Your task to perform on an android device: Search for "energizer triple a" on walmart, select the first entry, add it to the cart, then select checkout. Image 0: 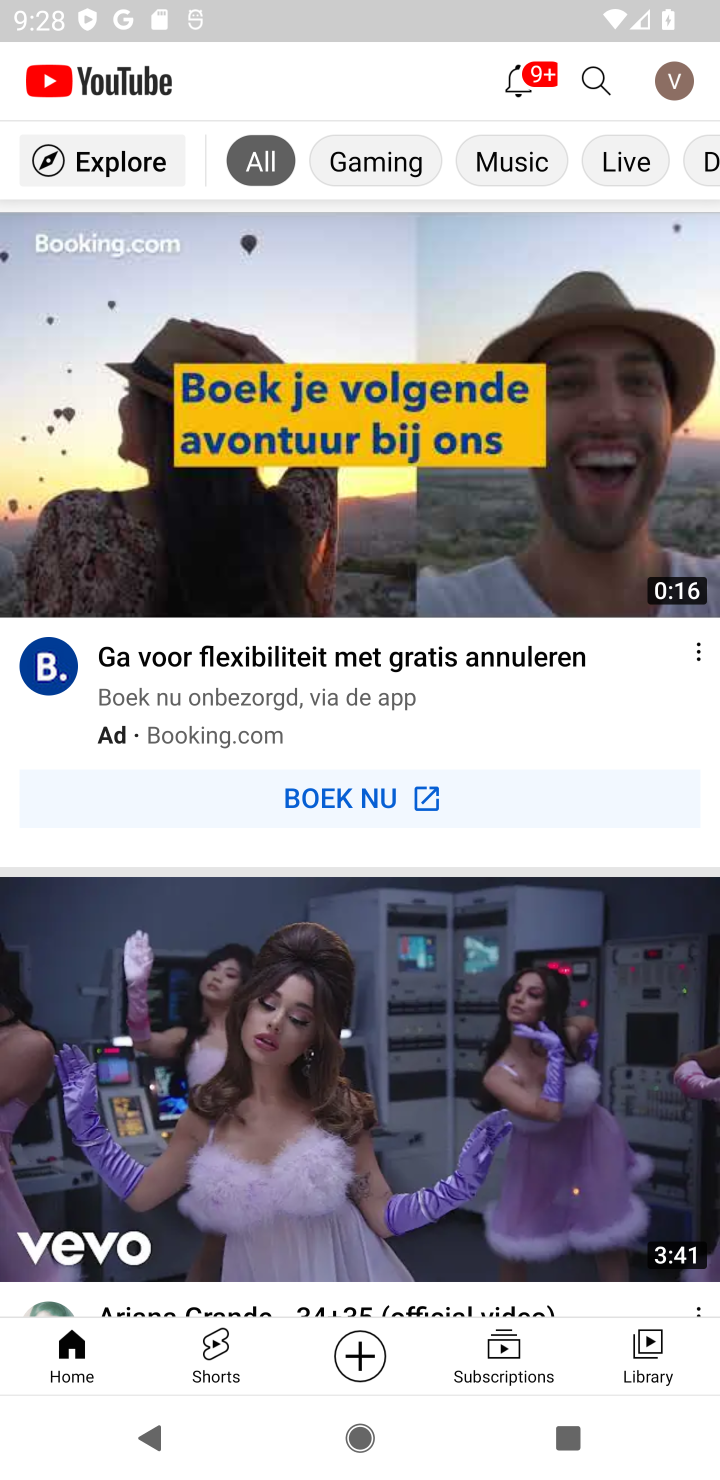
Step 0: press home button
Your task to perform on an android device: Search for "energizer triple a" on walmart, select the first entry, add it to the cart, then select checkout. Image 1: 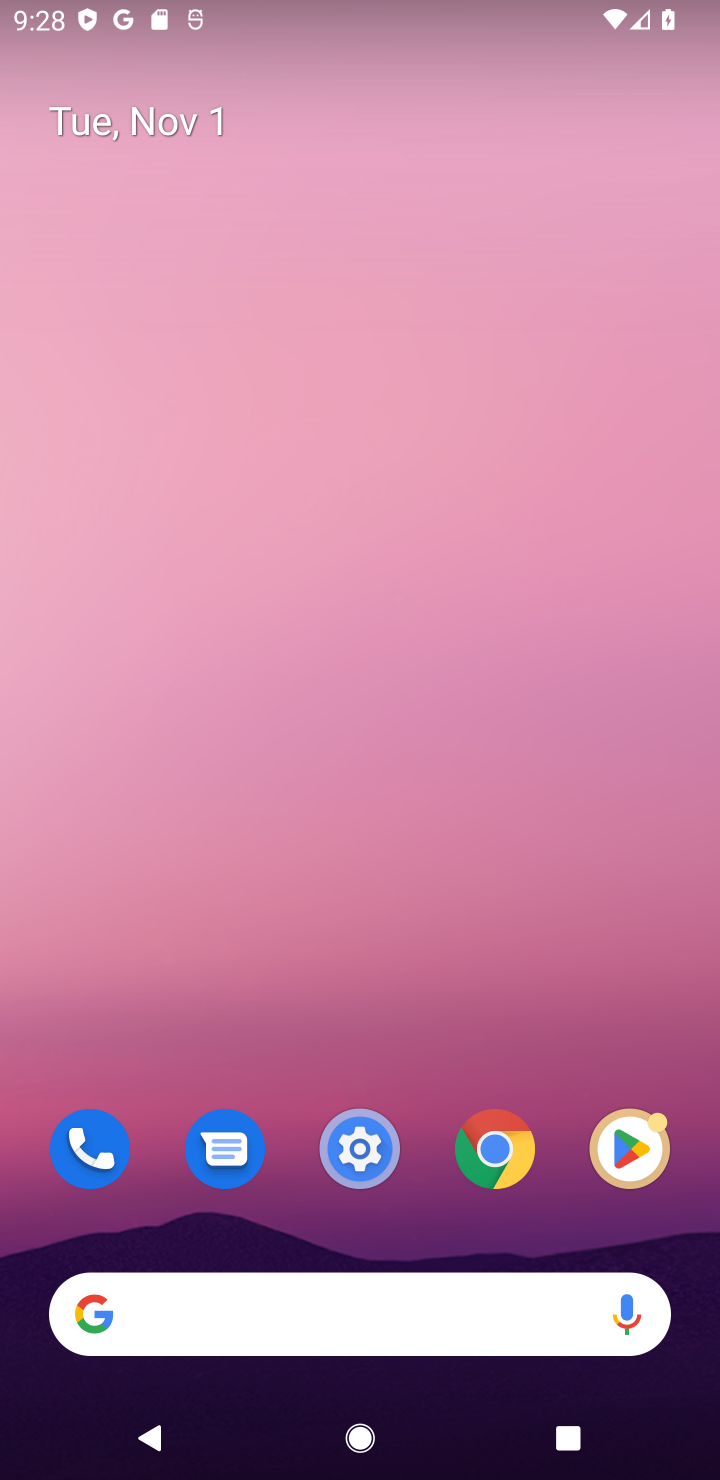
Step 1: click (137, 1304)
Your task to perform on an android device: Search for "energizer triple a" on walmart, select the first entry, add it to the cart, then select checkout. Image 2: 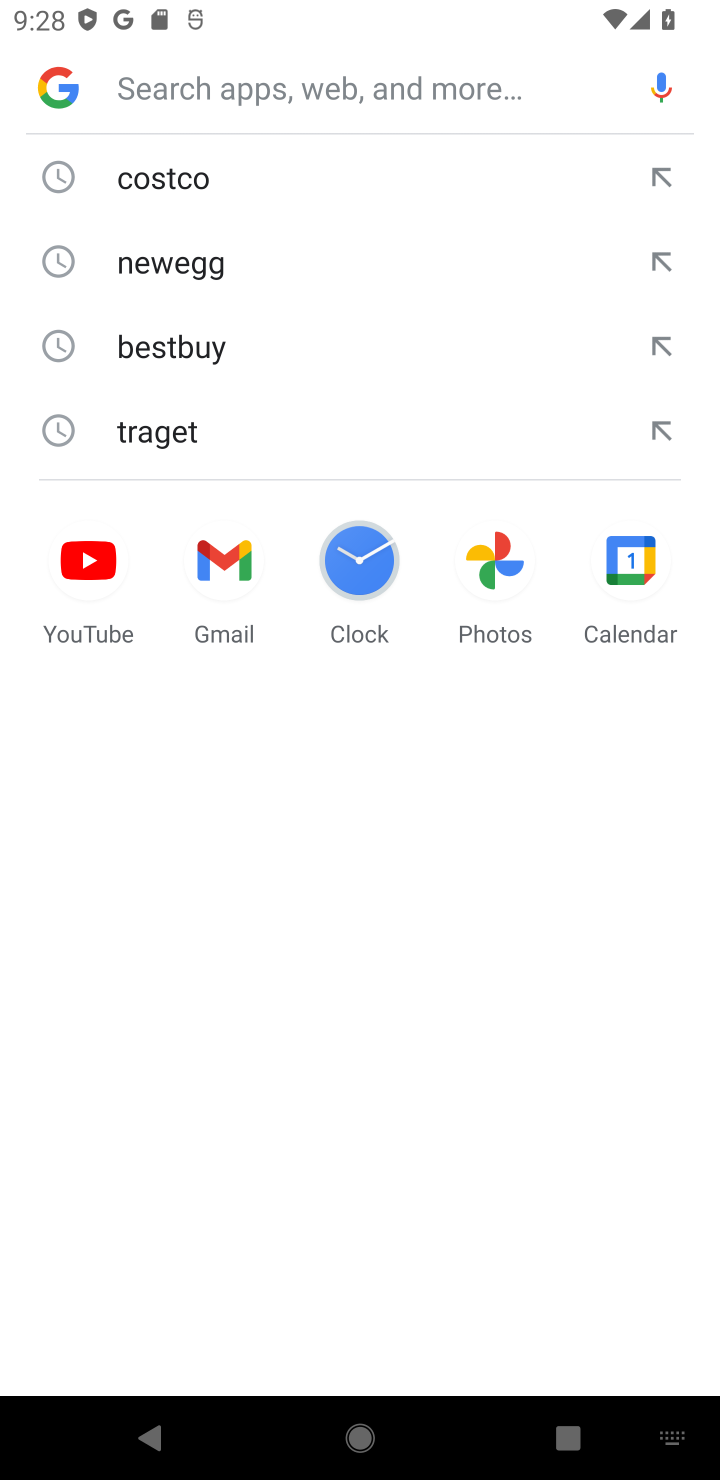
Step 2: type "walmart"
Your task to perform on an android device: Search for "energizer triple a" on walmart, select the first entry, add it to the cart, then select checkout. Image 3: 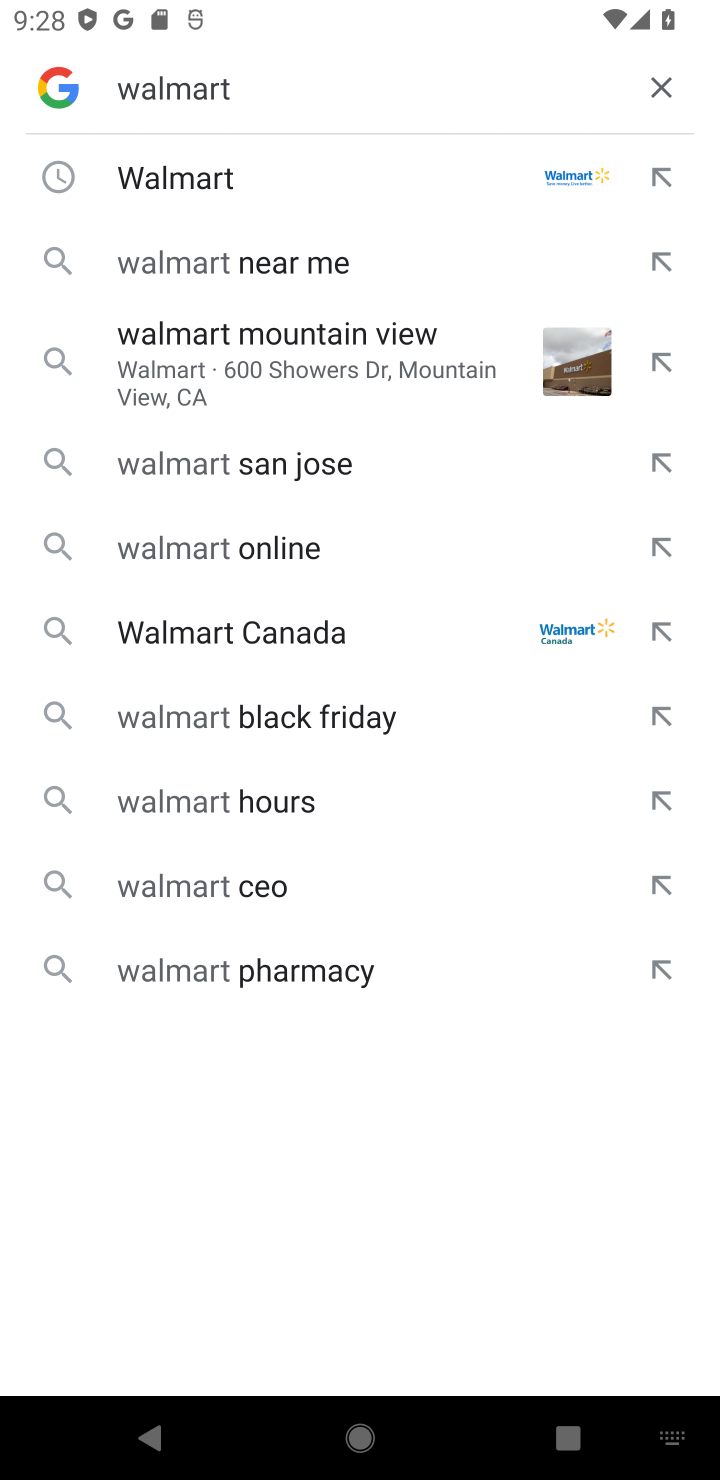
Step 3: press enter
Your task to perform on an android device: Search for "energizer triple a" on walmart, select the first entry, add it to the cart, then select checkout. Image 4: 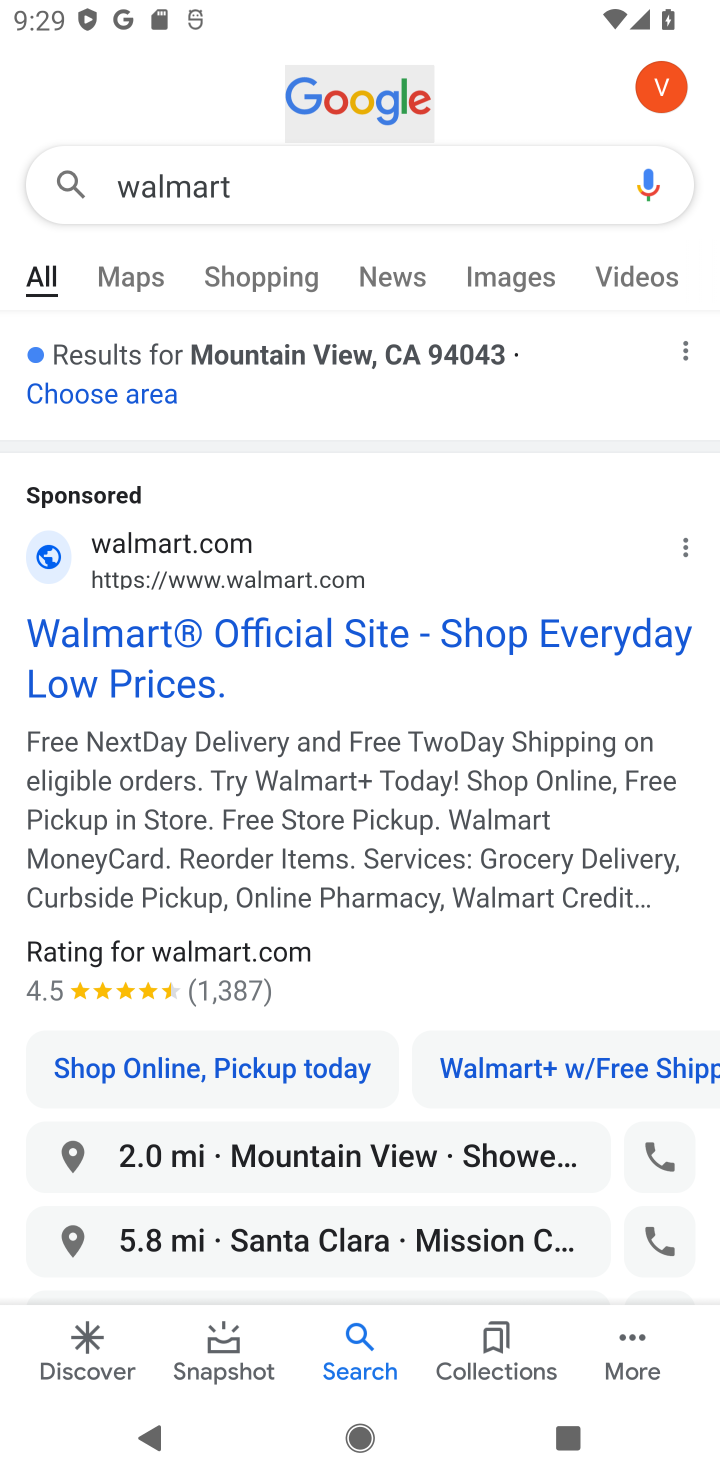
Step 4: click (215, 634)
Your task to perform on an android device: Search for "energizer triple a" on walmart, select the first entry, add it to the cart, then select checkout. Image 5: 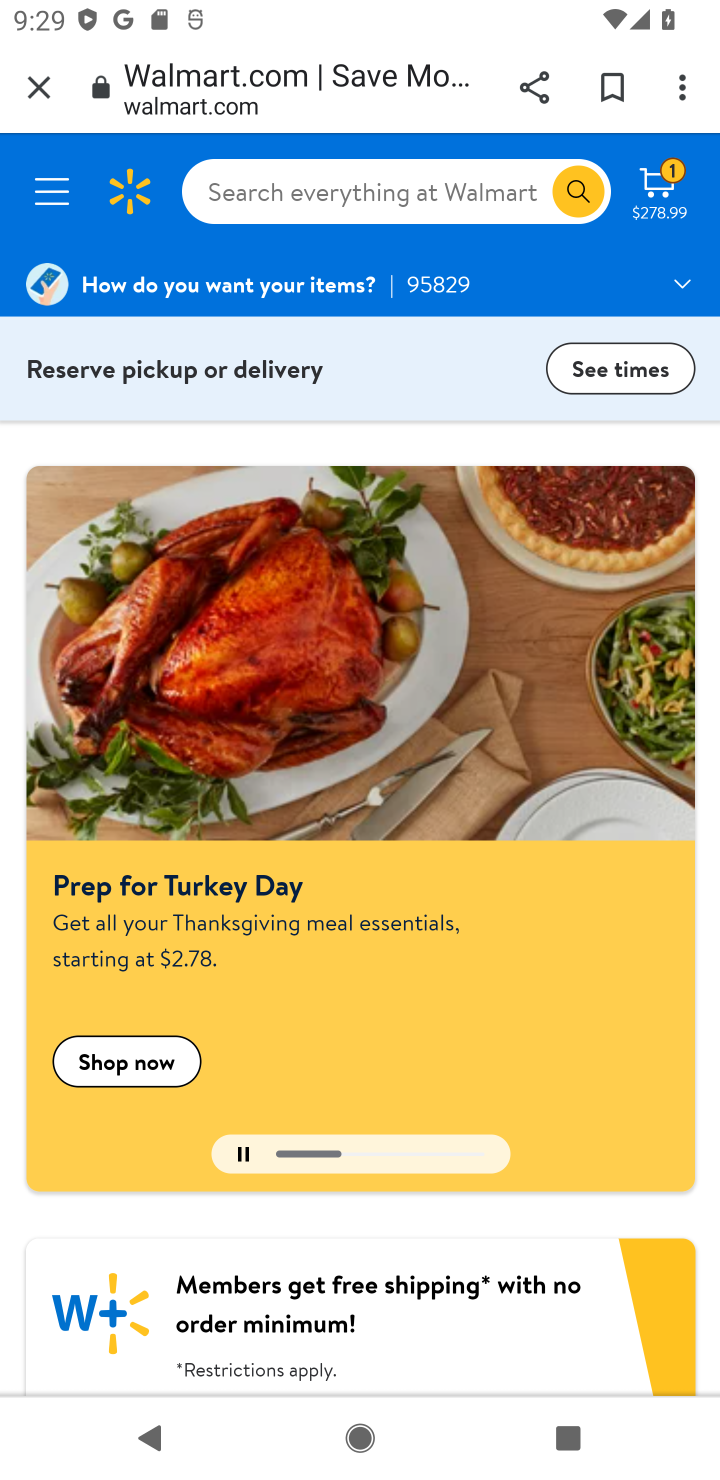
Step 5: click (259, 185)
Your task to perform on an android device: Search for "energizer triple a" on walmart, select the first entry, add it to the cart, then select checkout. Image 6: 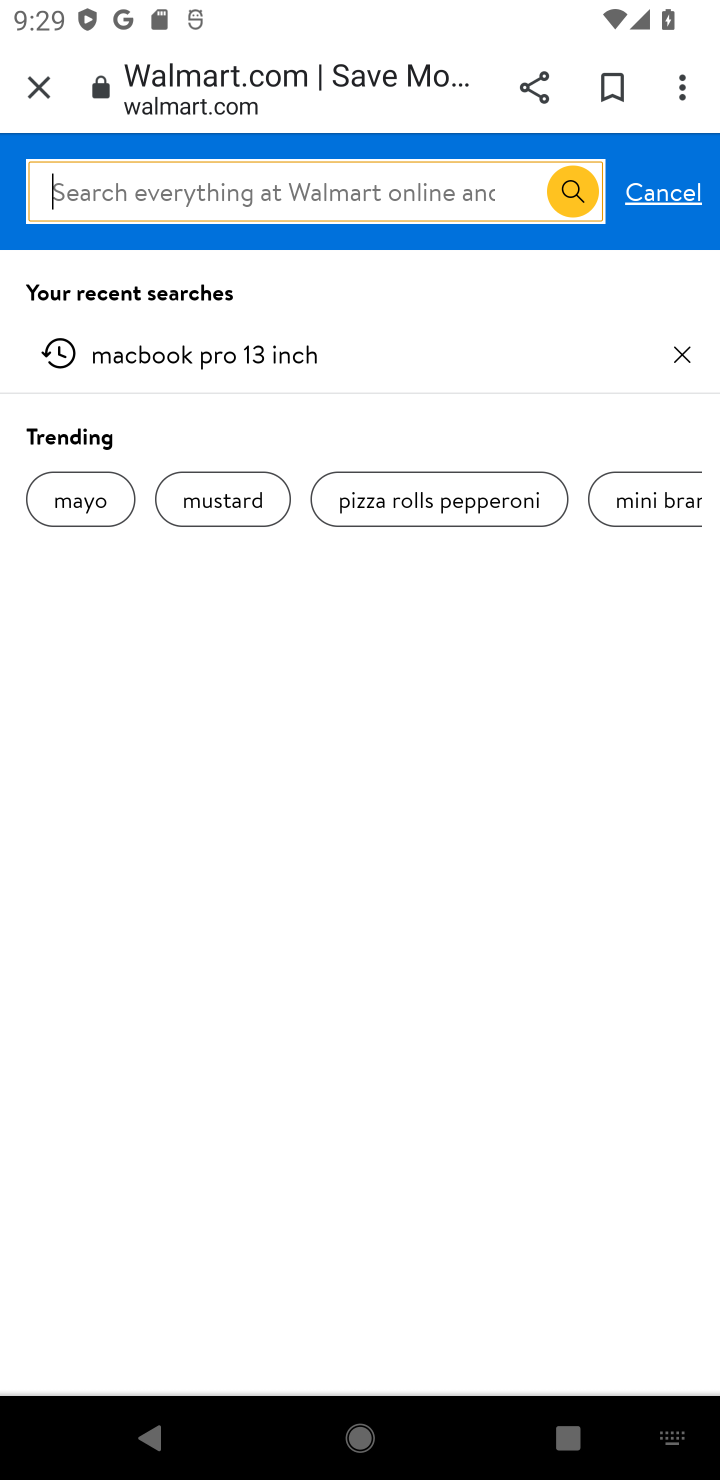
Step 6: type "energizer triple a"
Your task to perform on an android device: Search for "energizer triple a" on walmart, select the first entry, add it to the cart, then select checkout. Image 7: 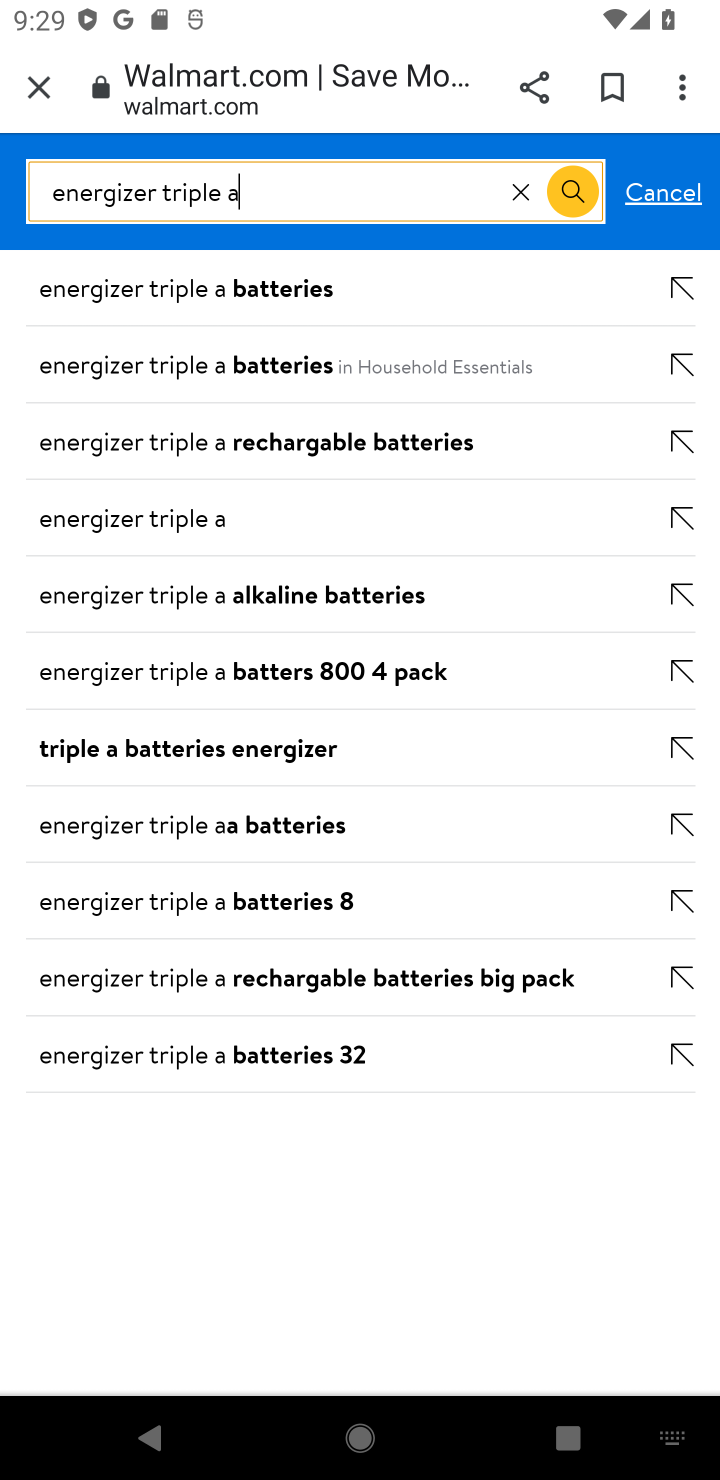
Step 7: press enter
Your task to perform on an android device: Search for "energizer triple a" on walmart, select the first entry, add it to the cart, then select checkout. Image 8: 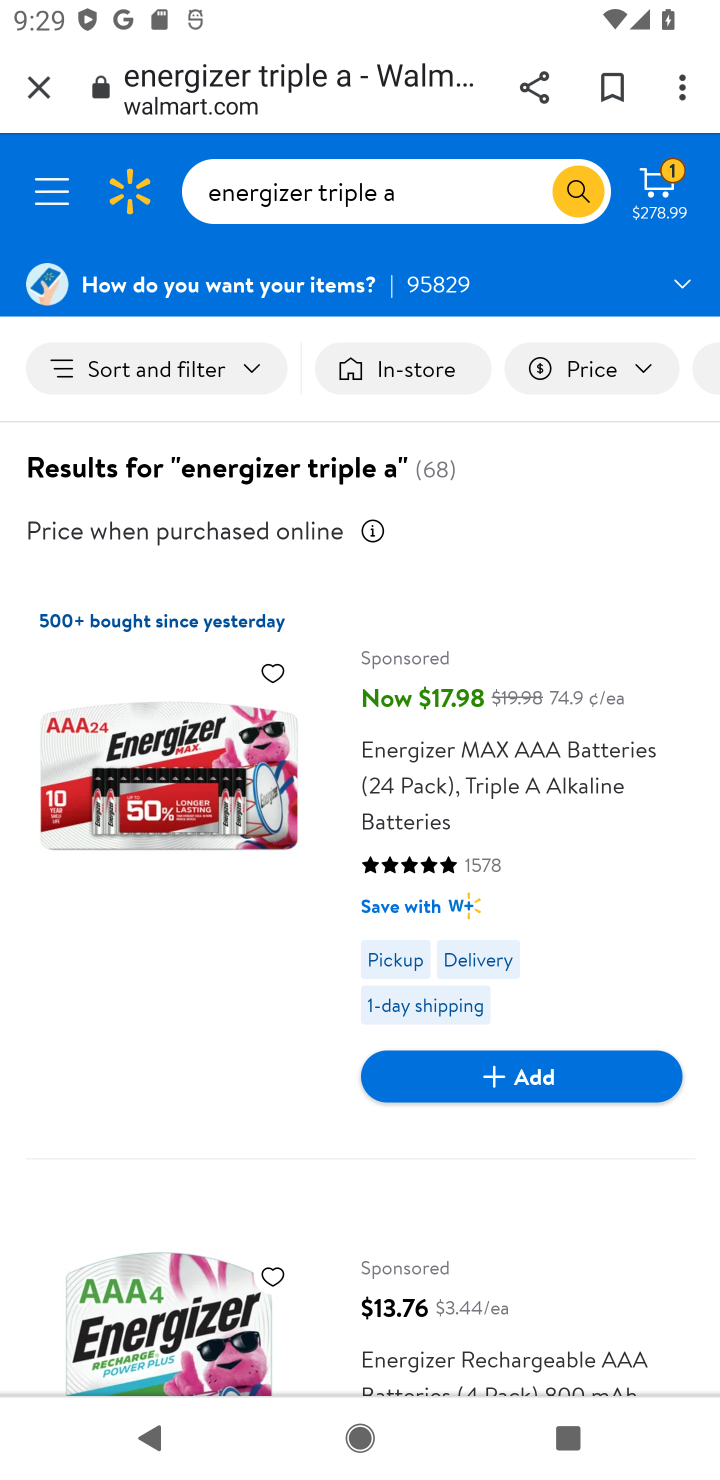
Step 8: drag from (504, 1192) to (557, 885)
Your task to perform on an android device: Search for "energizer triple a" on walmart, select the first entry, add it to the cart, then select checkout. Image 9: 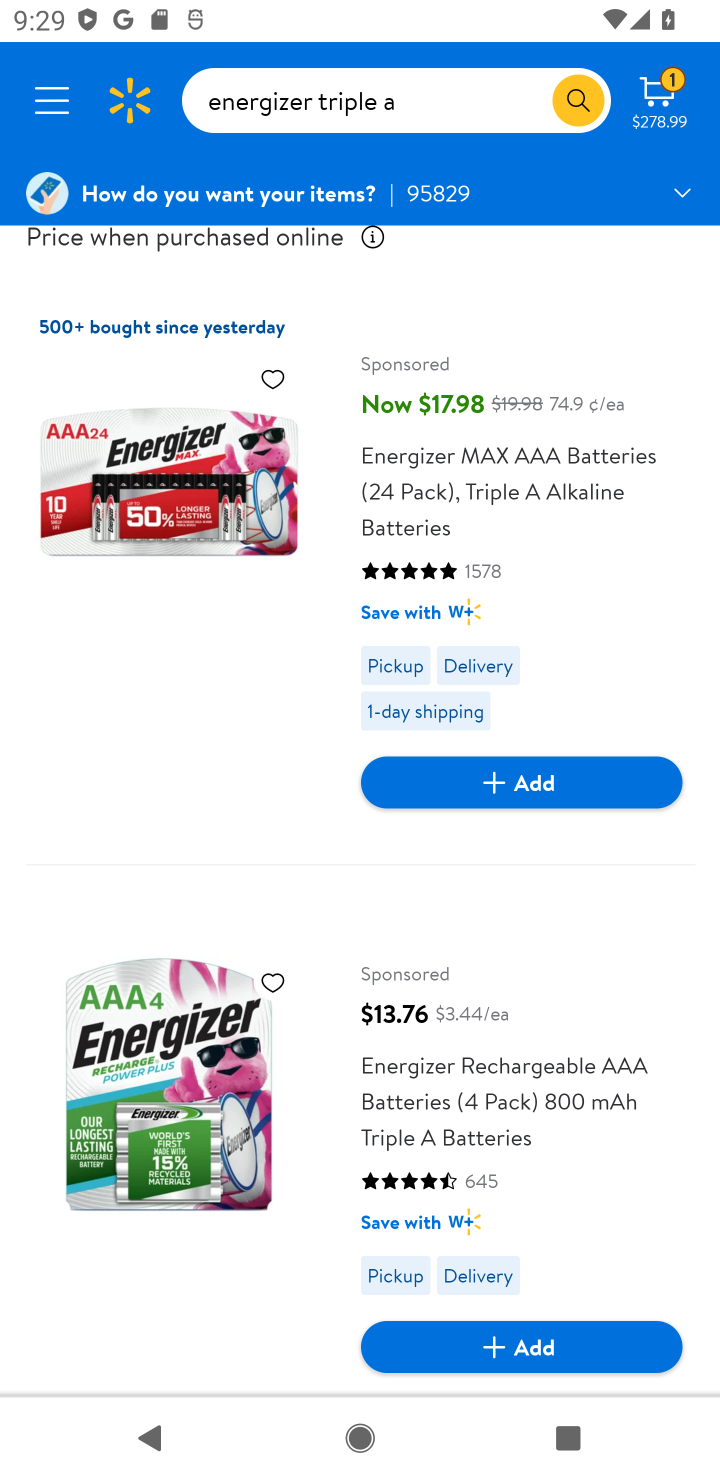
Step 9: click (524, 777)
Your task to perform on an android device: Search for "energizer triple a" on walmart, select the first entry, add it to the cart, then select checkout. Image 10: 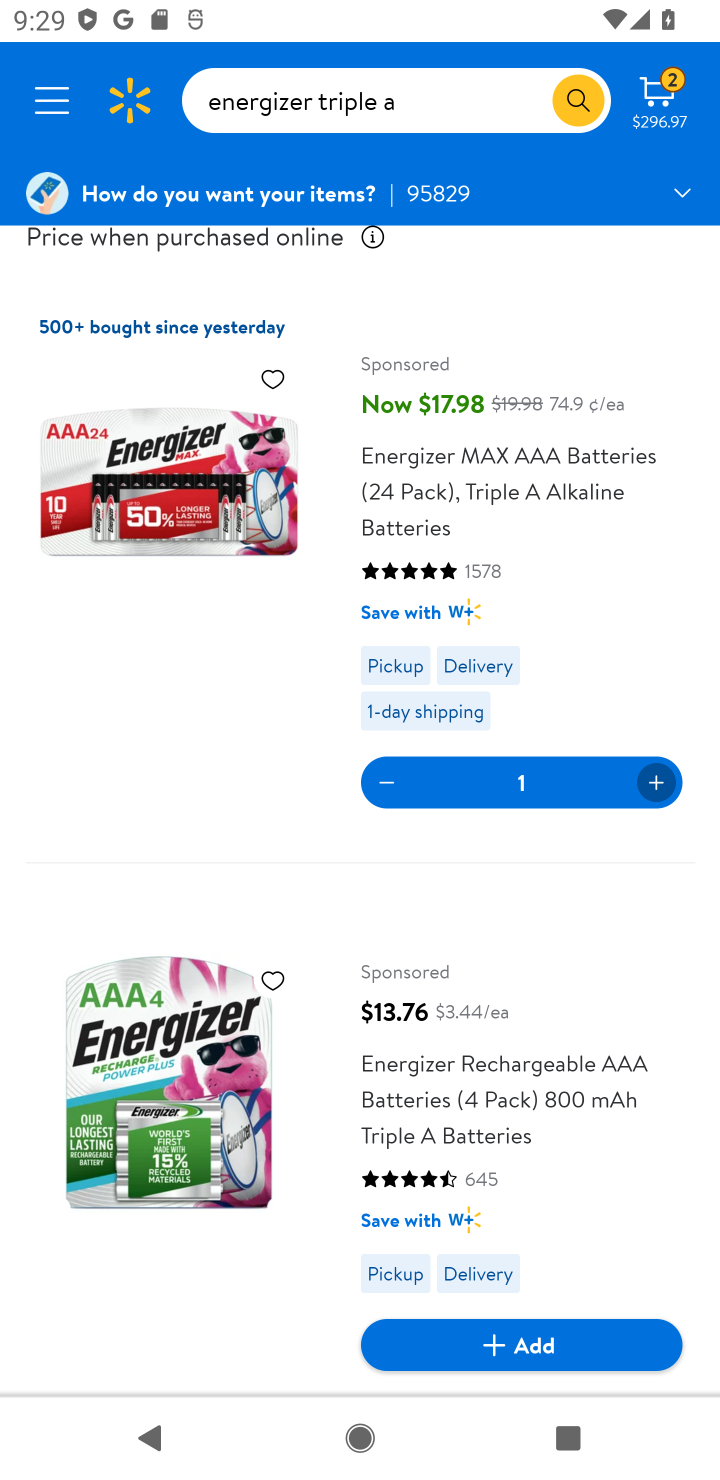
Step 10: click (661, 92)
Your task to perform on an android device: Search for "energizer triple a" on walmart, select the first entry, add it to the cart, then select checkout. Image 11: 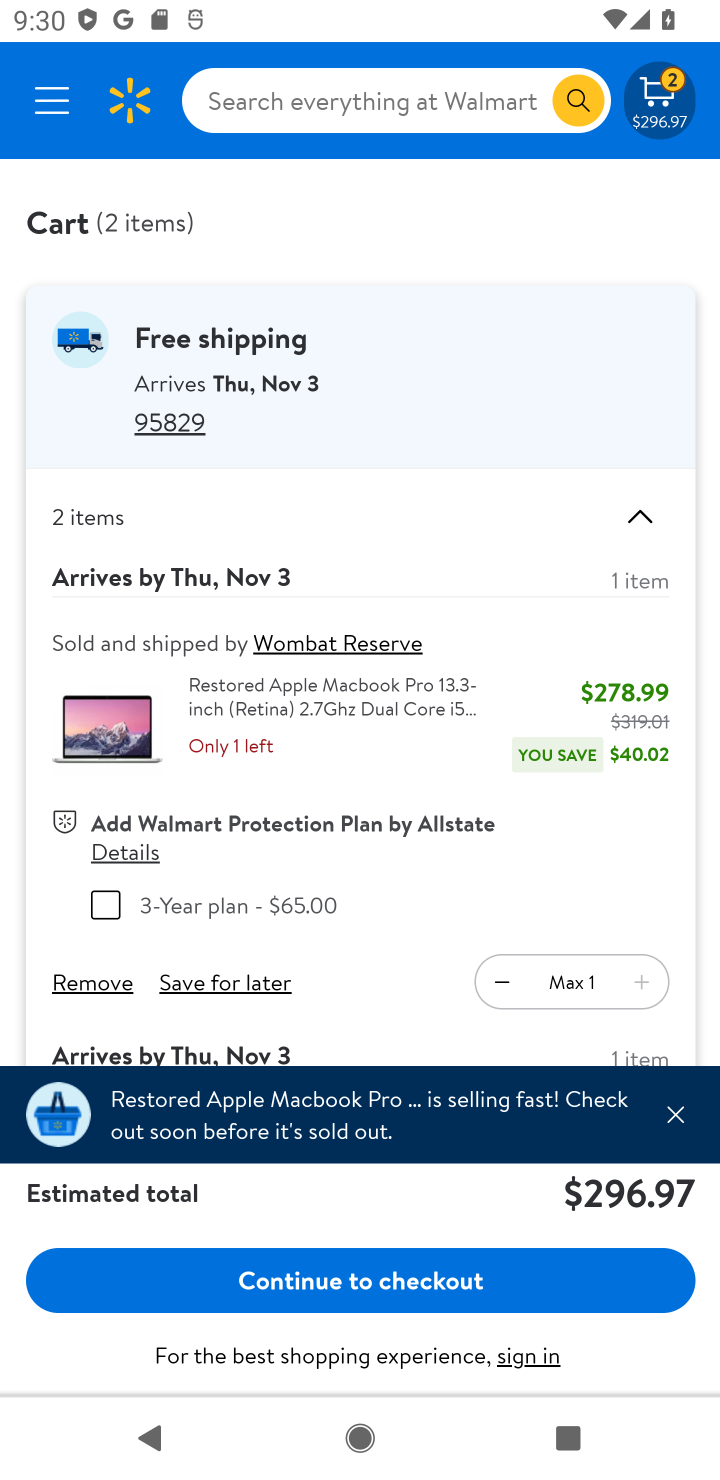
Step 11: click (382, 1286)
Your task to perform on an android device: Search for "energizer triple a" on walmart, select the first entry, add it to the cart, then select checkout. Image 12: 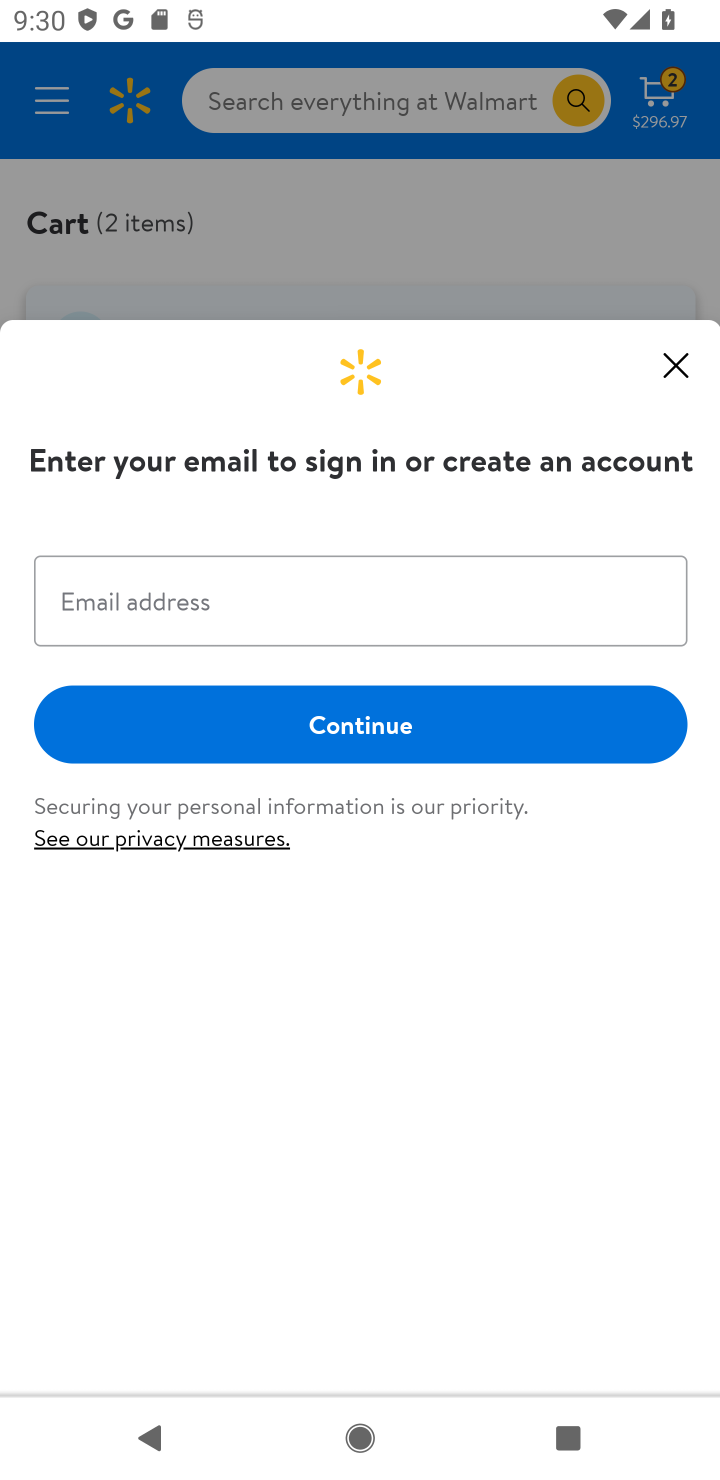
Step 12: task complete